Your task to perform on an android device: delete a single message in the gmail app Image 0: 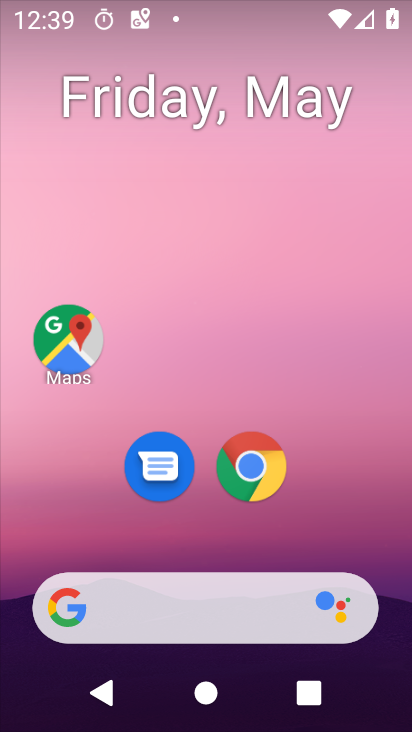
Step 0: drag from (393, 599) to (258, 161)
Your task to perform on an android device: delete a single message in the gmail app Image 1: 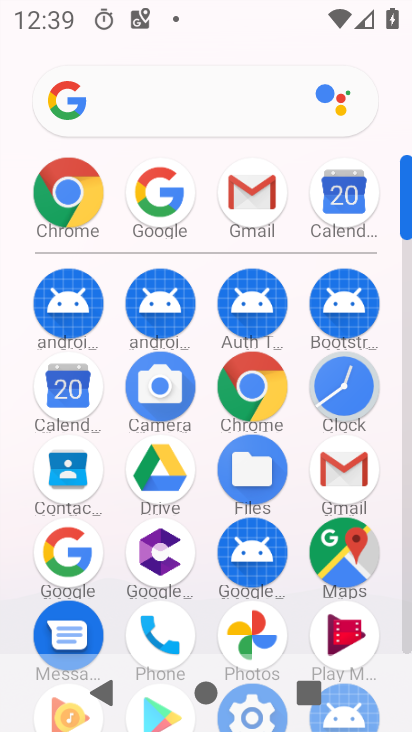
Step 1: click (240, 196)
Your task to perform on an android device: delete a single message in the gmail app Image 2: 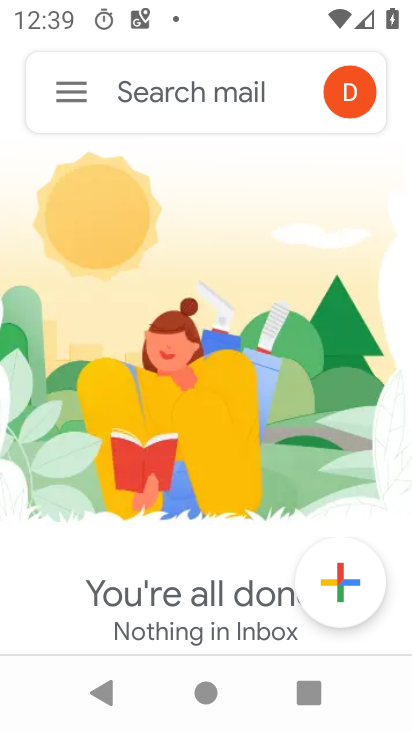
Step 2: task complete